Your task to perform on an android device: install app "McDonald's" Image 0: 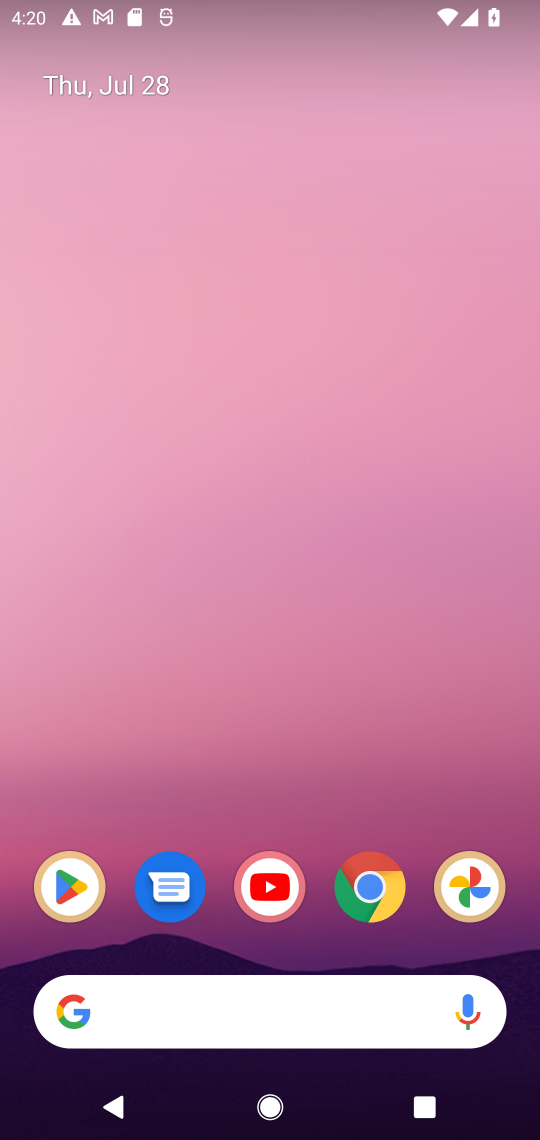
Step 0: click (69, 882)
Your task to perform on an android device: install app "McDonald's" Image 1: 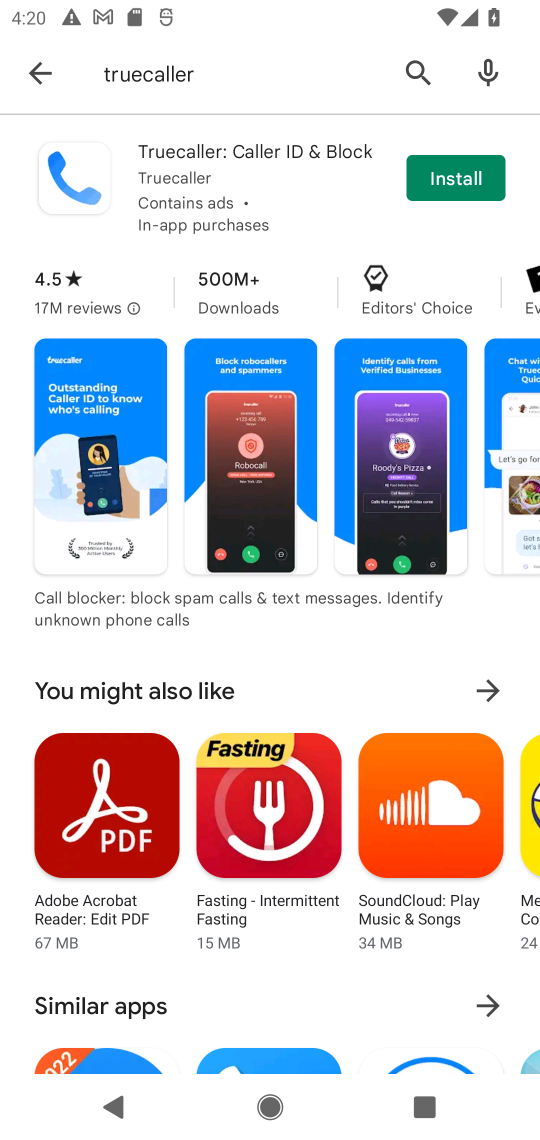
Step 1: click (202, 75)
Your task to perform on an android device: install app "McDonald's" Image 2: 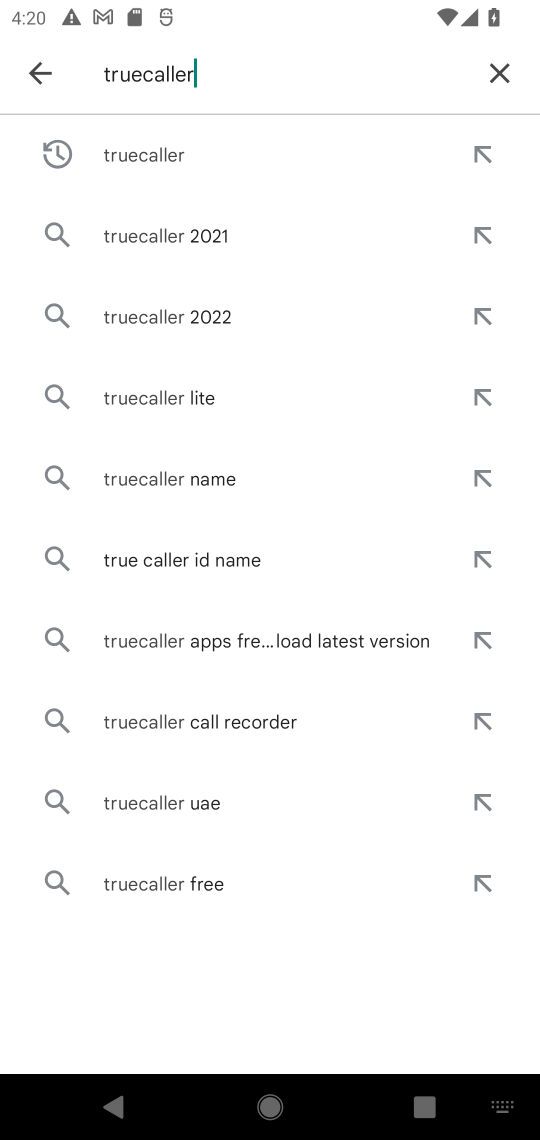
Step 2: click (494, 54)
Your task to perform on an android device: install app "McDonald's" Image 3: 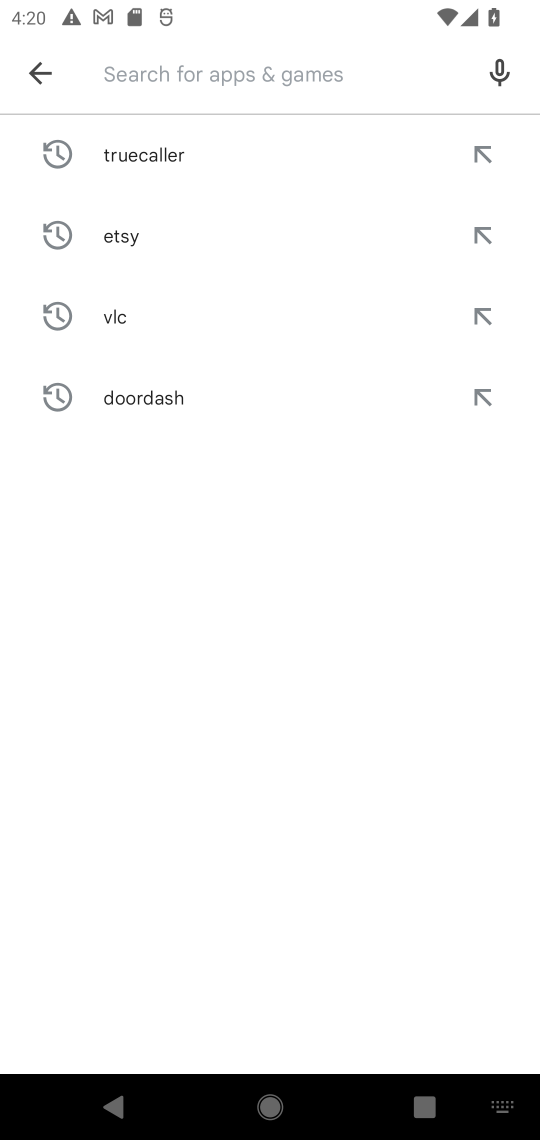
Step 3: type "McDonald's"
Your task to perform on an android device: install app "McDonald's" Image 4: 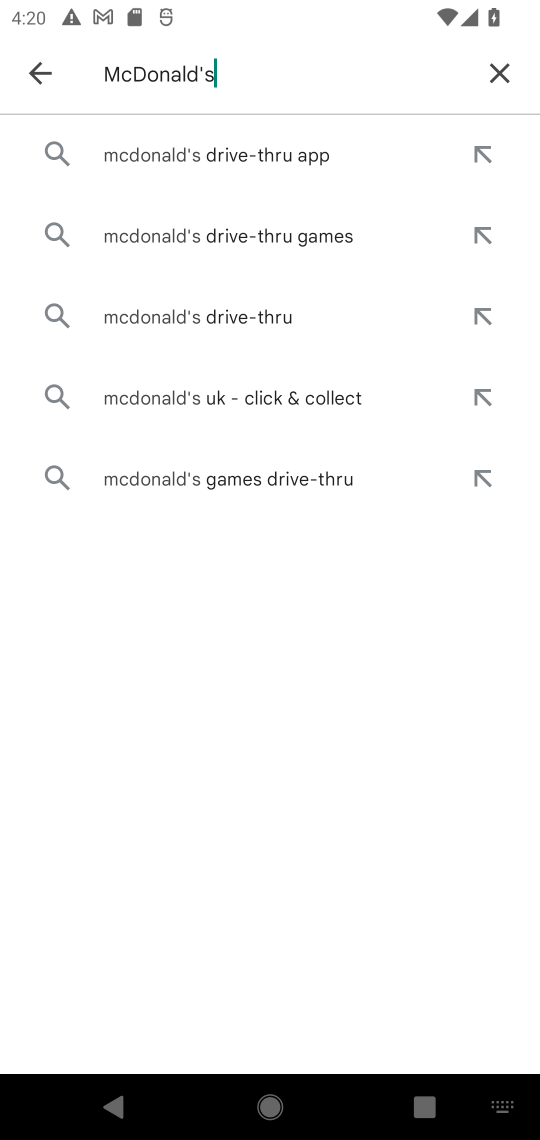
Step 4: click (159, 160)
Your task to perform on an android device: install app "McDonald's" Image 5: 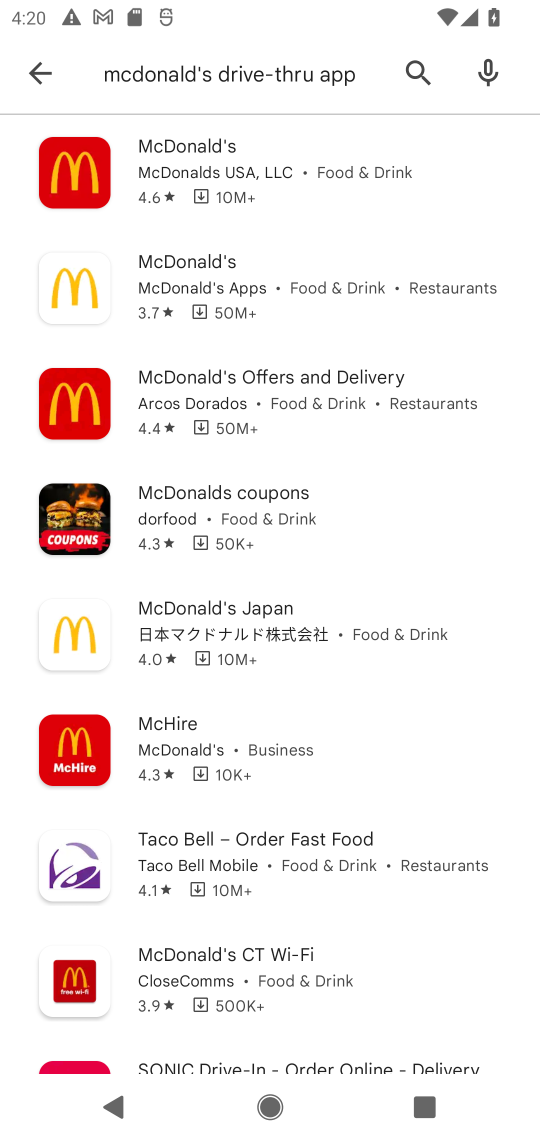
Step 5: click (166, 167)
Your task to perform on an android device: install app "McDonald's" Image 6: 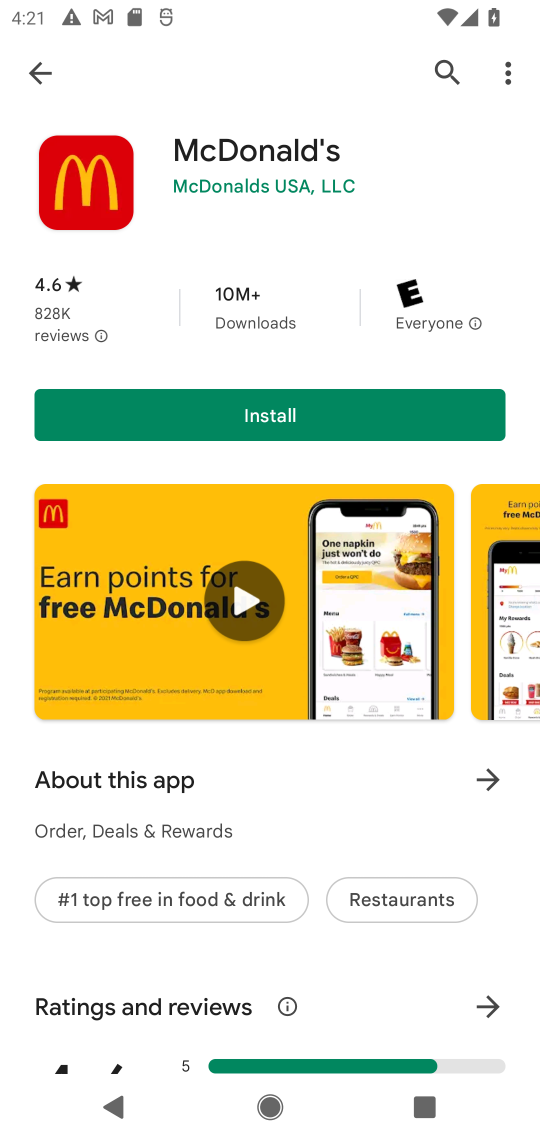
Step 6: click (202, 428)
Your task to perform on an android device: install app "McDonald's" Image 7: 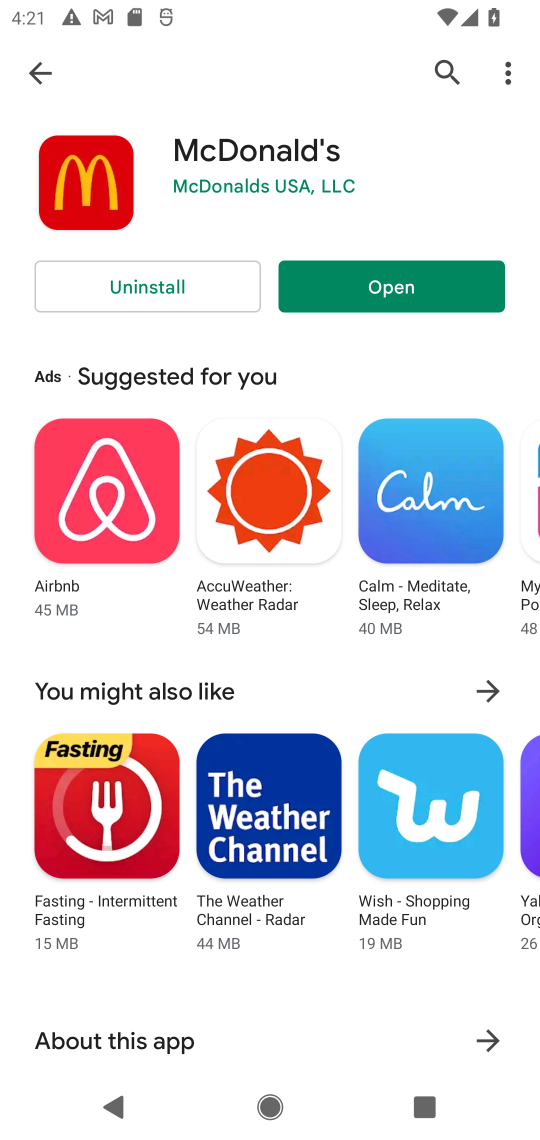
Step 7: task complete